Your task to perform on an android device: turn pop-ups off in chrome Image 0: 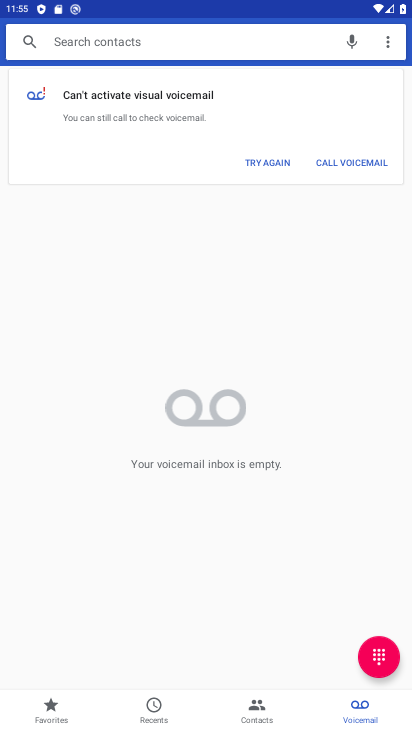
Step 0: press home button
Your task to perform on an android device: turn pop-ups off in chrome Image 1: 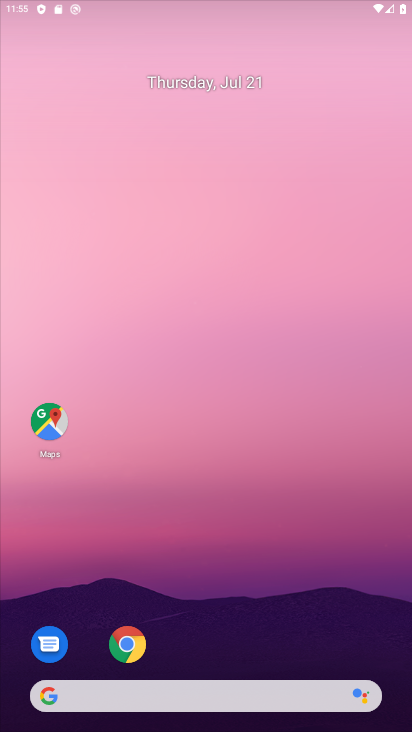
Step 1: drag from (226, 629) to (242, 87)
Your task to perform on an android device: turn pop-ups off in chrome Image 2: 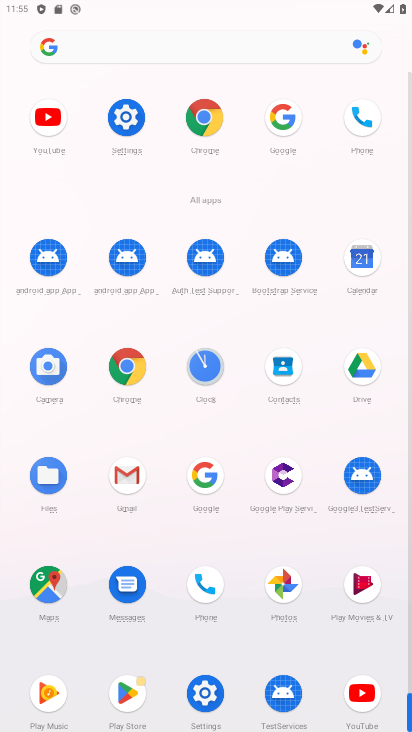
Step 2: drag from (236, 447) to (231, 97)
Your task to perform on an android device: turn pop-ups off in chrome Image 3: 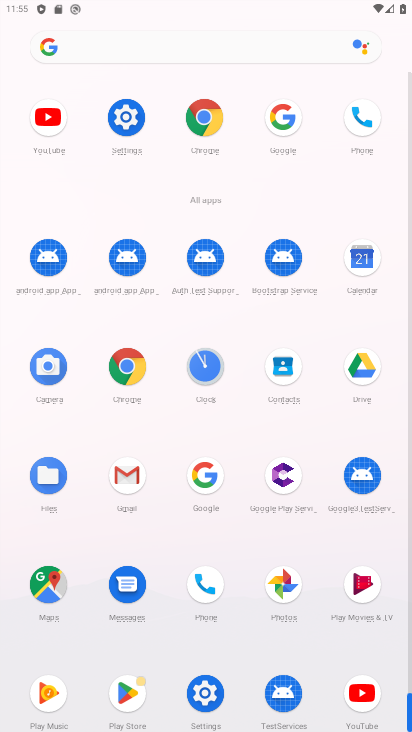
Step 3: click (197, 139)
Your task to perform on an android device: turn pop-ups off in chrome Image 4: 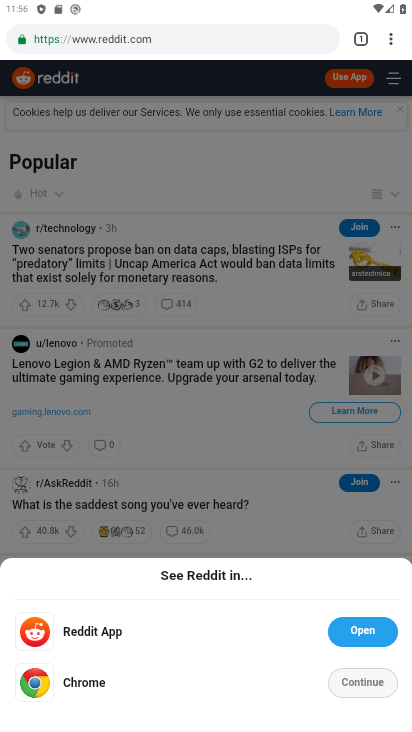
Step 4: click (392, 48)
Your task to perform on an android device: turn pop-ups off in chrome Image 5: 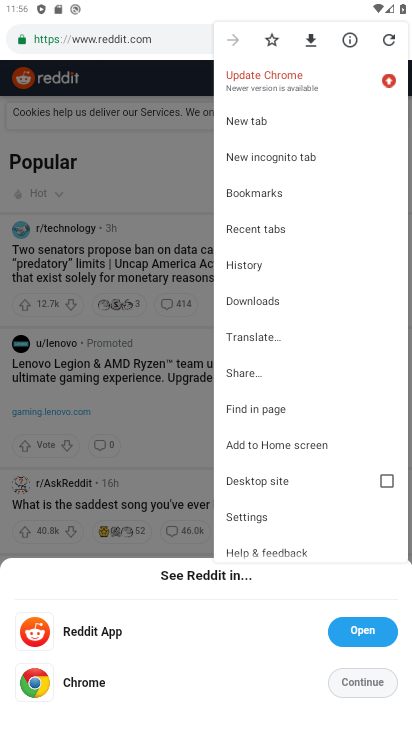
Step 5: click (266, 510)
Your task to perform on an android device: turn pop-ups off in chrome Image 6: 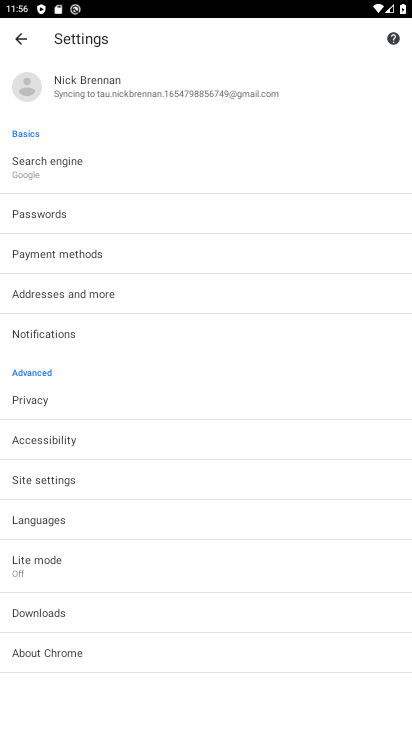
Step 6: click (65, 485)
Your task to perform on an android device: turn pop-ups off in chrome Image 7: 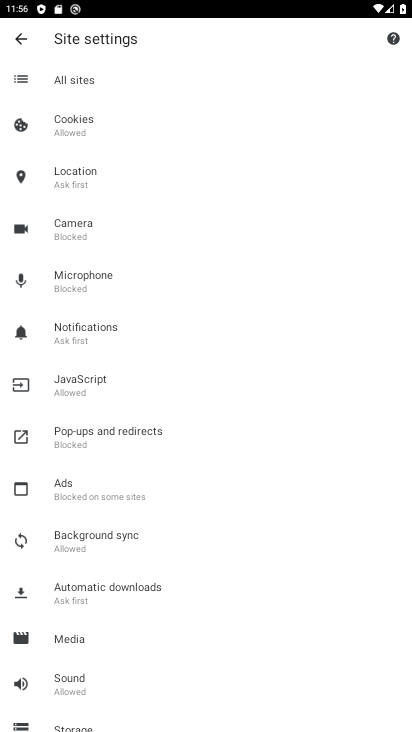
Step 7: click (105, 431)
Your task to perform on an android device: turn pop-ups off in chrome Image 8: 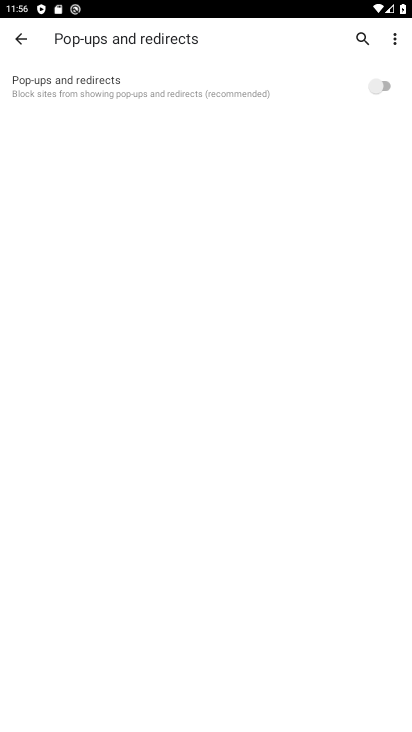
Step 8: task complete